Your task to perform on an android device: Go to Amazon Image 0: 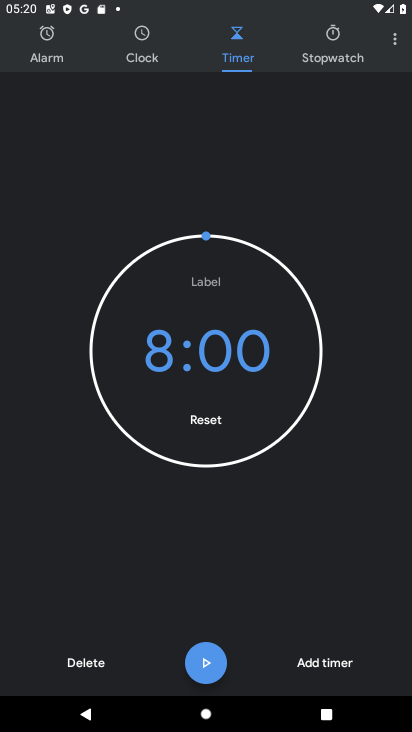
Step 0: press home button
Your task to perform on an android device: Go to Amazon Image 1: 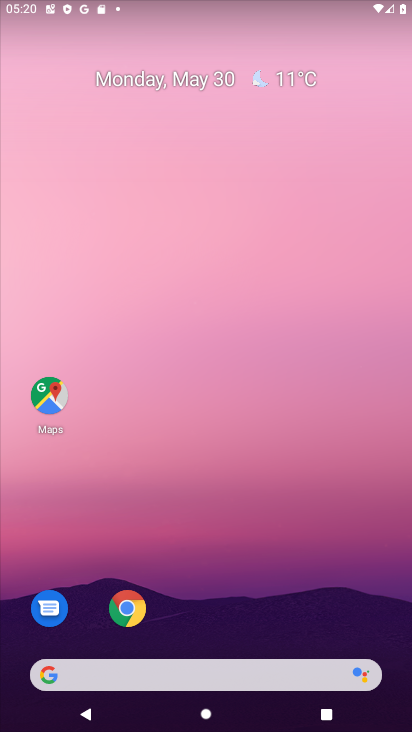
Step 1: drag from (175, 655) to (175, 368)
Your task to perform on an android device: Go to Amazon Image 2: 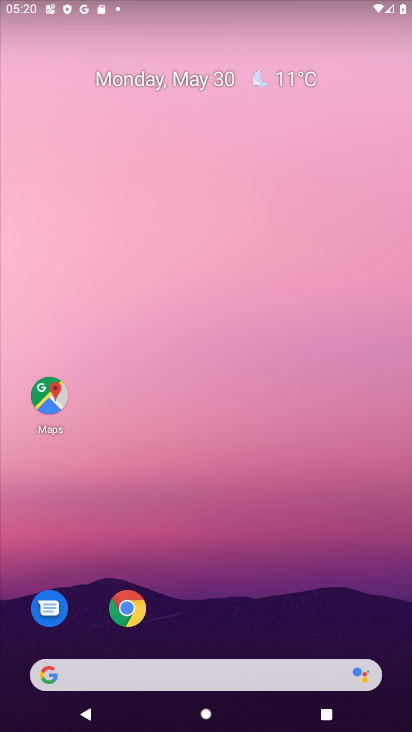
Step 2: click (118, 620)
Your task to perform on an android device: Go to Amazon Image 3: 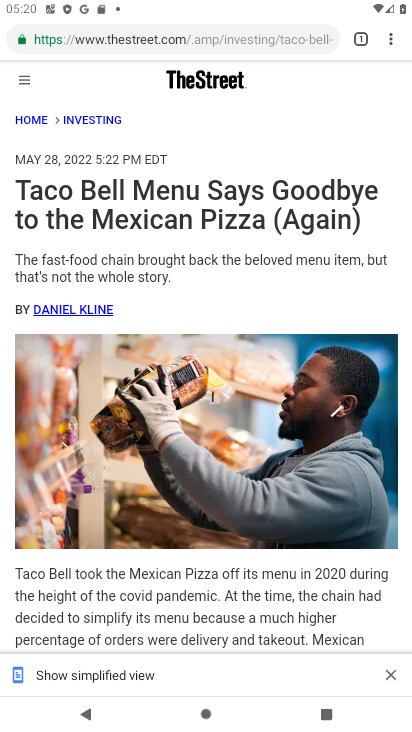
Step 3: click (357, 38)
Your task to perform on an android device: Go to Amazon Image 4: 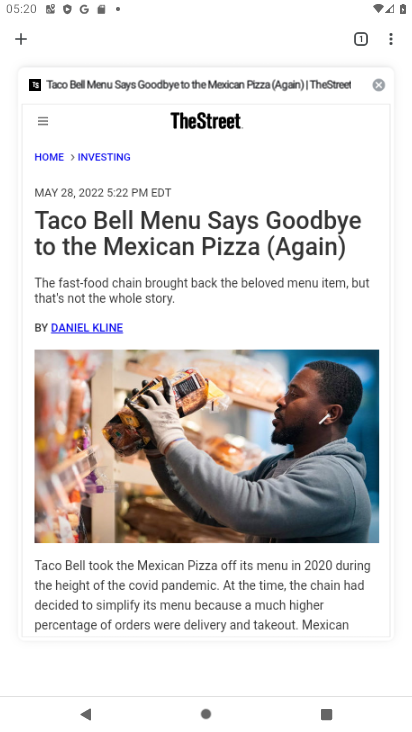
Step 4: click (385, 85)
Your task to perform on an android device: Go to Amazon Image 5: 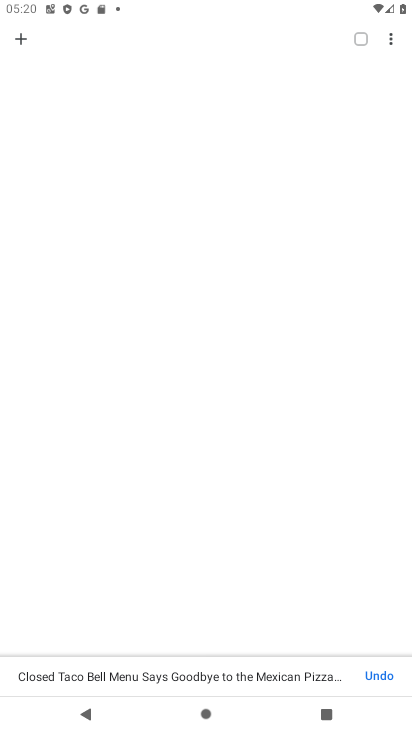
Step 5: click (25, 43)
Your task to perform on an android device: Go to Amazon Image 6: 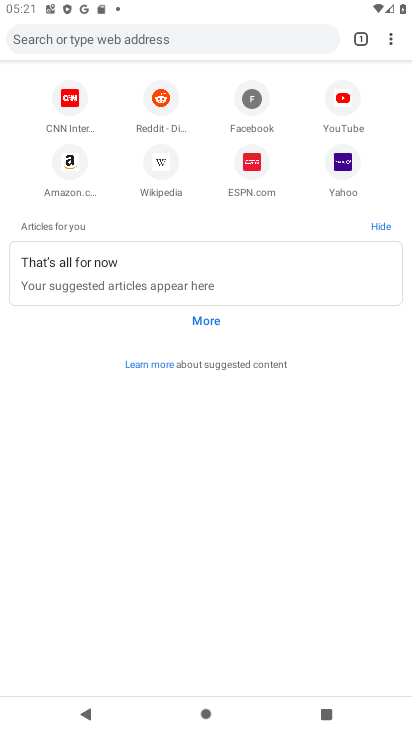
Step 6: click (70, 166)
Your task to perform on an android device: Go to Amazon Image 7: 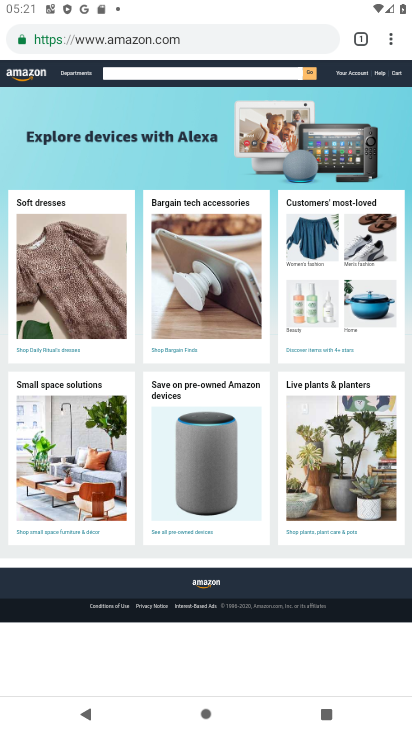
Step 7: task complete